Your task to perform on an android device: make emails show in primary in the gmail app Image 0: 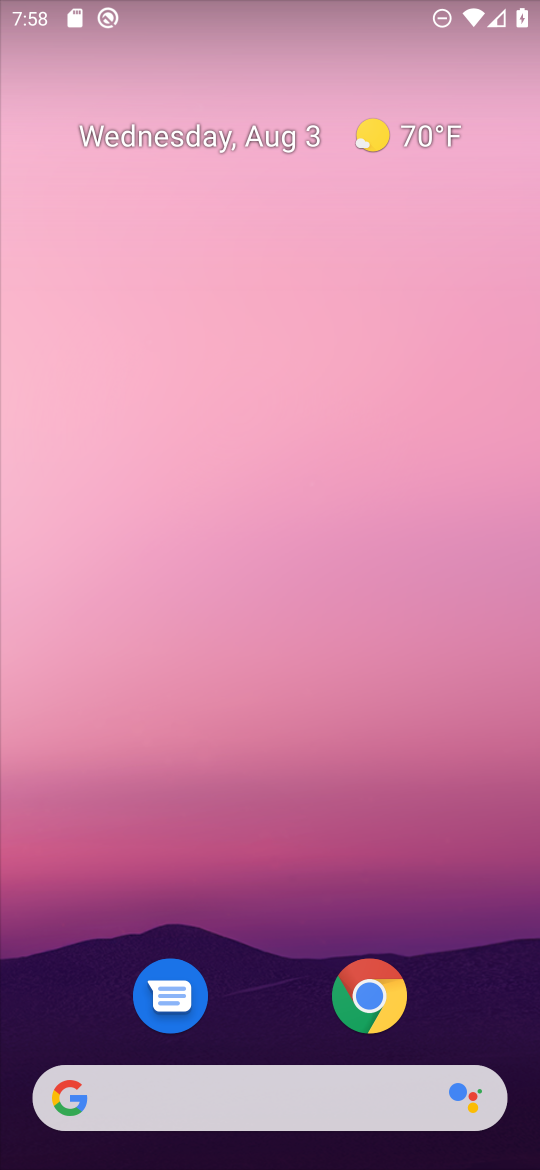
Step 0: drag from (319, 905) to (347, 7)
Your task to perform on an android device: make emails show in primary in the gmail app Image 1: 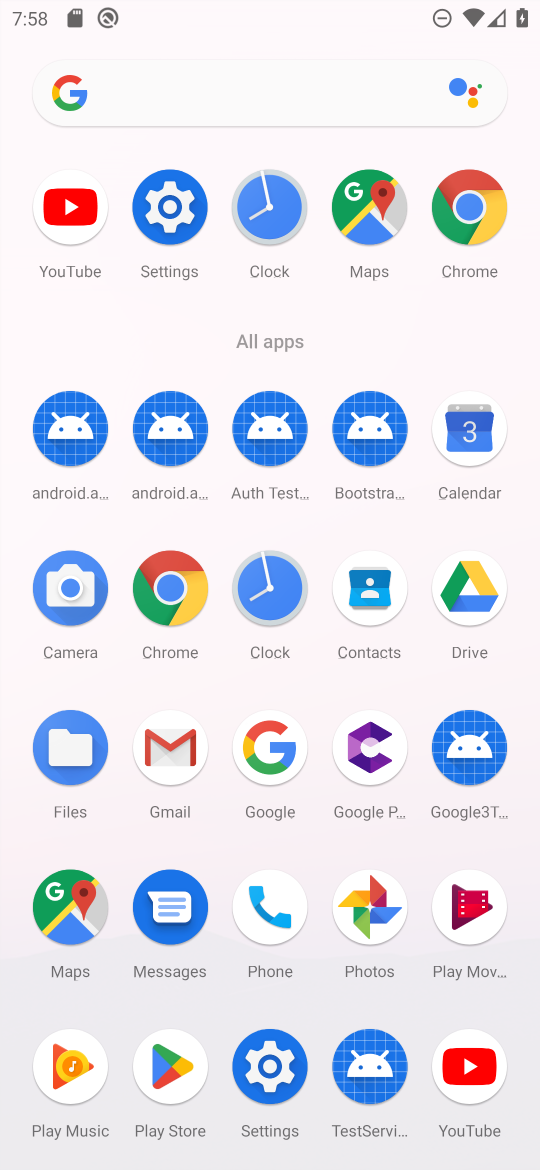
Step 1: click (190, 753)
Your task to perform on an android device: make emails show in primary in the gmail app Image 2: 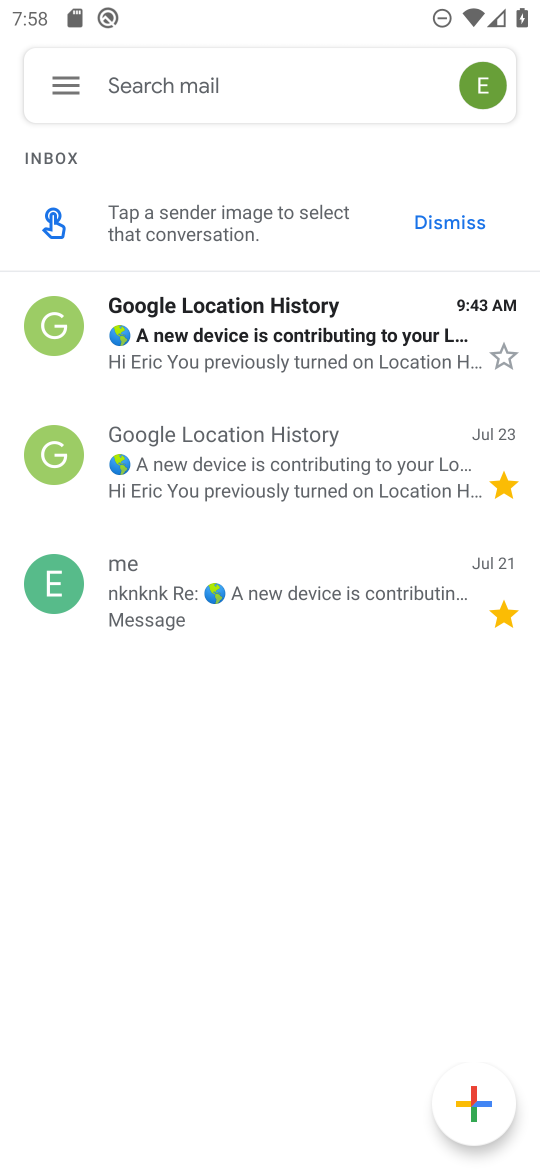
Step 2: click (58, 75)
Your task to perform on an android device: make emails show in primary in the gmail app Image 3: 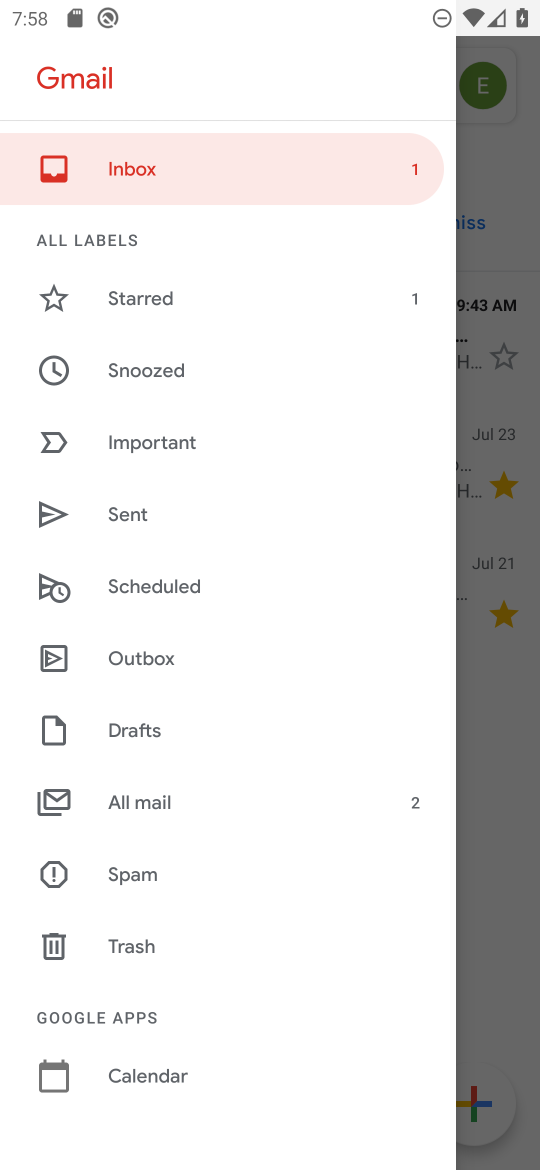
Step 3: drag from (280, 859) to (272, 221)
Your task to perform on an android device: make emails show in primary in the gmail app Image 4: 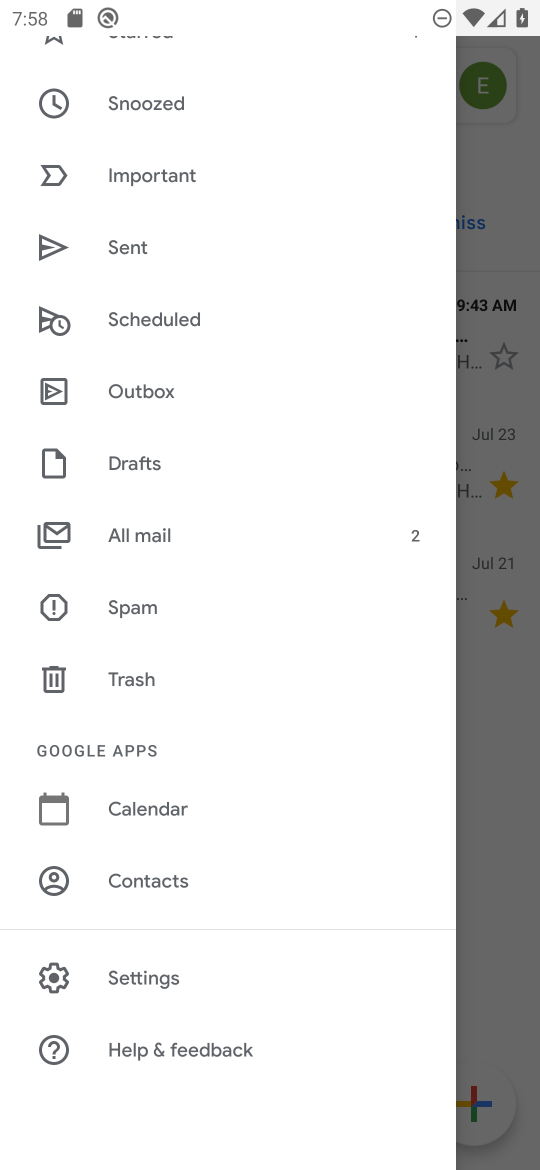
Step 4: click (172, 977)
Your task to perform on an android device: make emails show in primary in the gmail app Image 5: 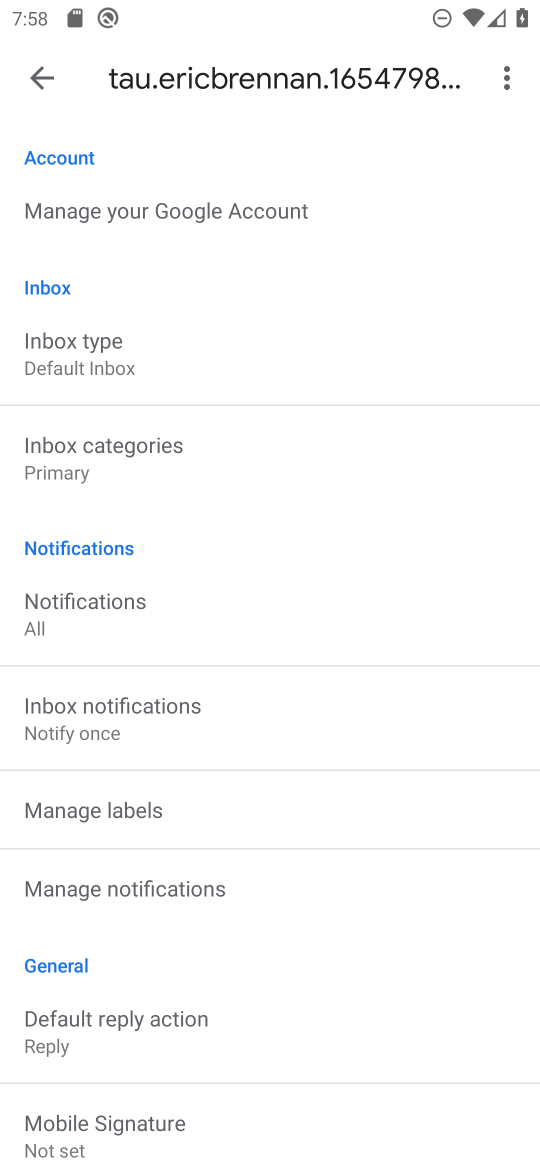
Step 5: task complete